Your task to perform on an android device: Go to Reddit.com Image 0: 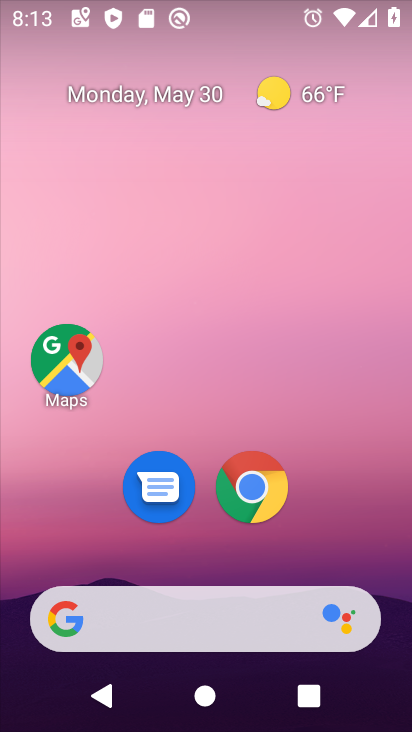
Step 0: press home button
Your task to perform on an android device: Go to Reddit.com Image 1: 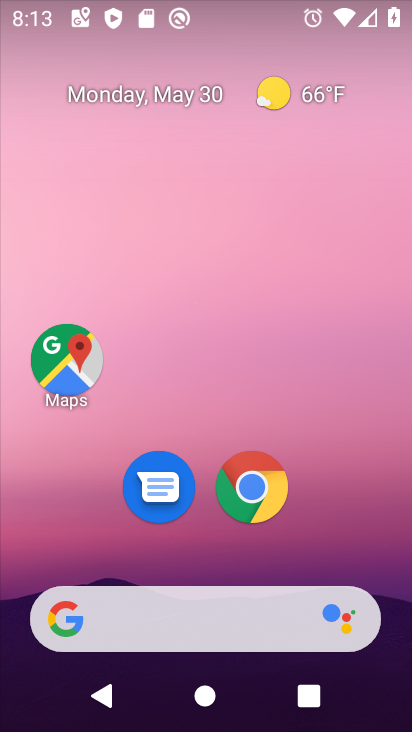
Step 1: click (73, 622)
Your task to perform on an android device: Go to Reddit.com Image 2: 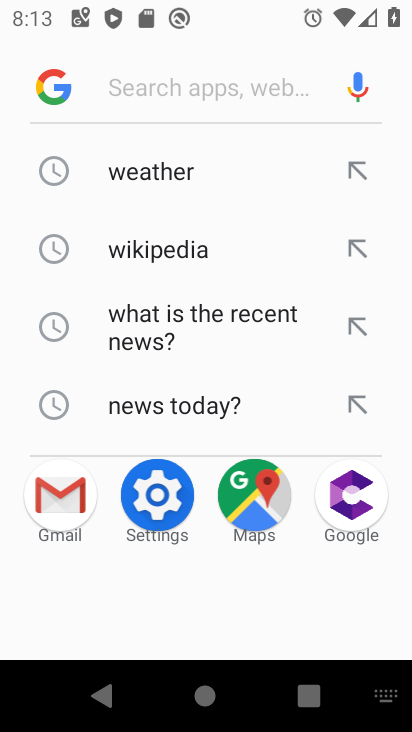
Step 2: type "Reddit.com"
Your task to perform on an android device: Go to Reddit.com Image 3: 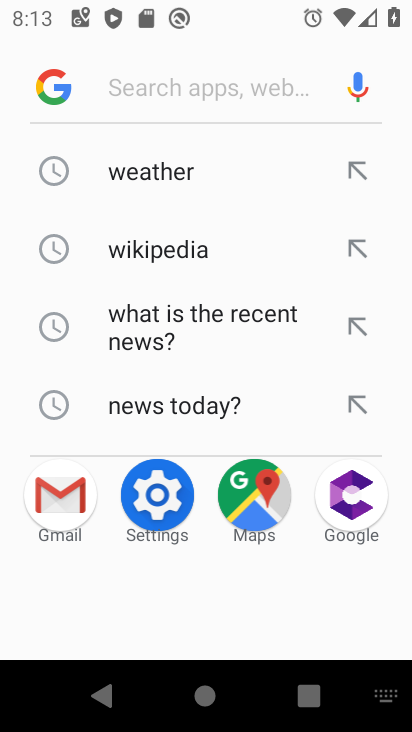
Step 3: click (212, 88)
Your task to perform on an android device: Go to Reddit.com Image 4: 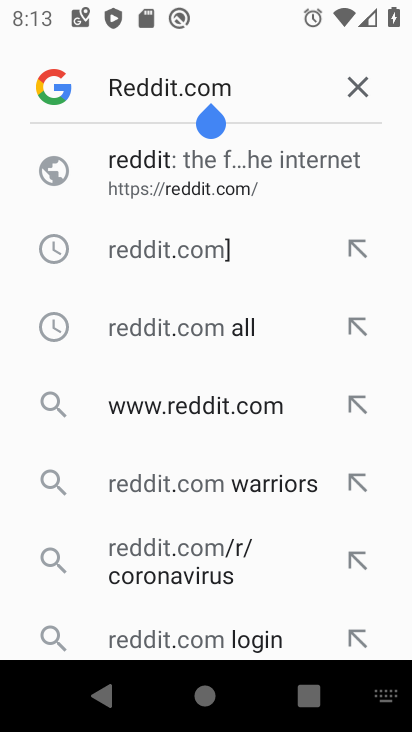
Step 4: click (151, 173)
Your task to perform on an android device: Go to Reddit.com Image 5: 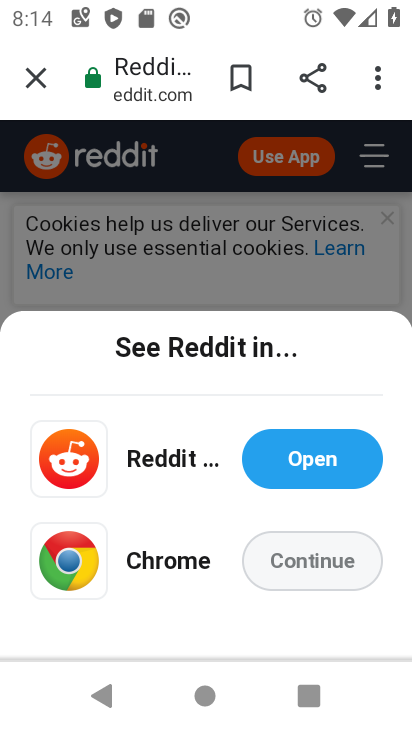
Step 5: task complete